Your task to perform on an android device: toggle data saver in the chrome app Image 0: 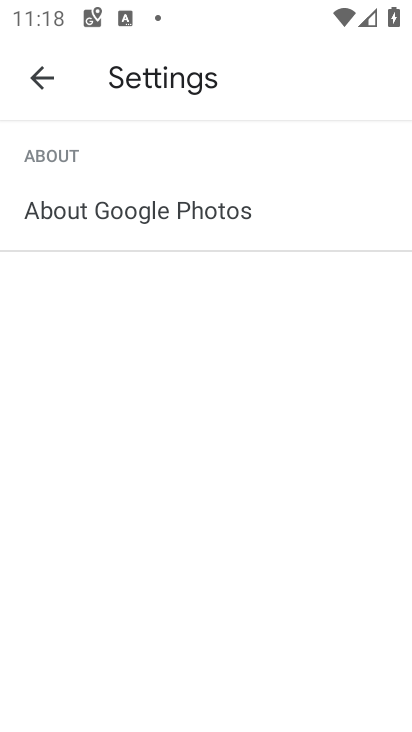
Step 0: press home button
Your task to perform on an android device: toggle data saver in the chrome app Image 1: 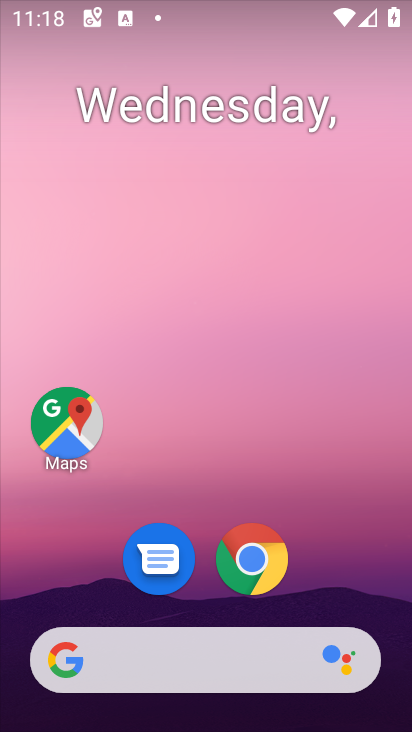
Step 1: drag from (225, 617) to (241, 234)
Your task to perform on an android device: toggle data saver in the chrome app Image 2: 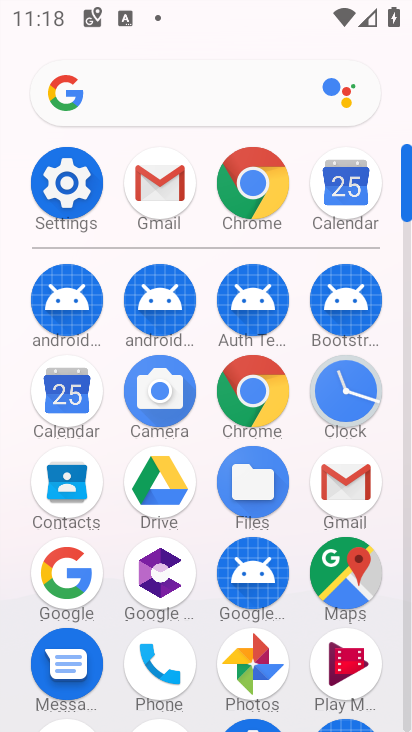
Step 2: click (262, 406)
Your task to perform on an android device: toggle data saver in the chrome app Image 3: 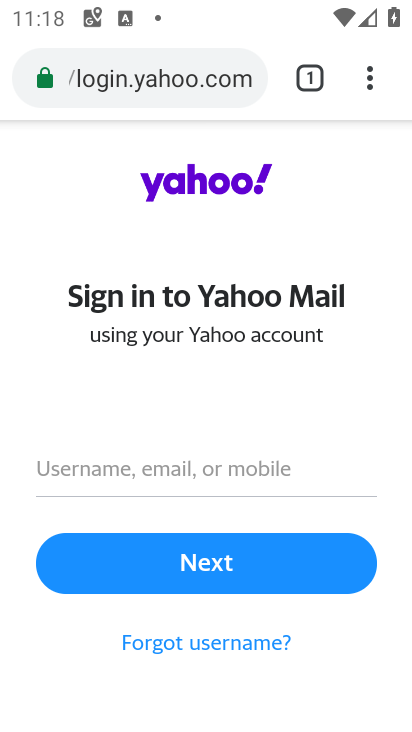
Step 3: click (374, 83)
Your task to perform on an android device: toggle data saver in the chrome app Image 4: 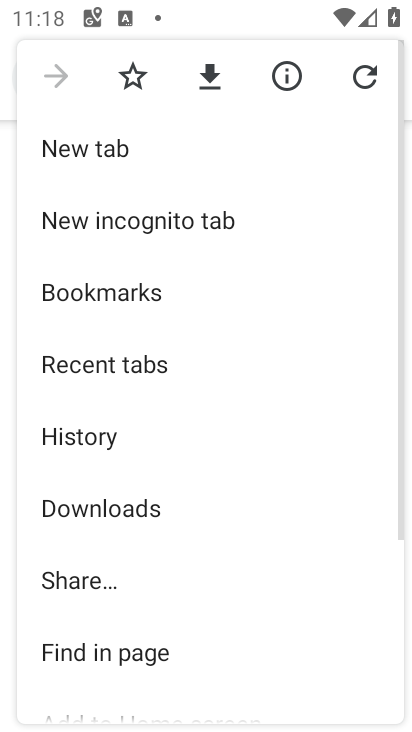
Step 4: drag from (188, 453) to (222, 137)
Your task to perform on an android device: toggle data saver in the chrome app Image 5: 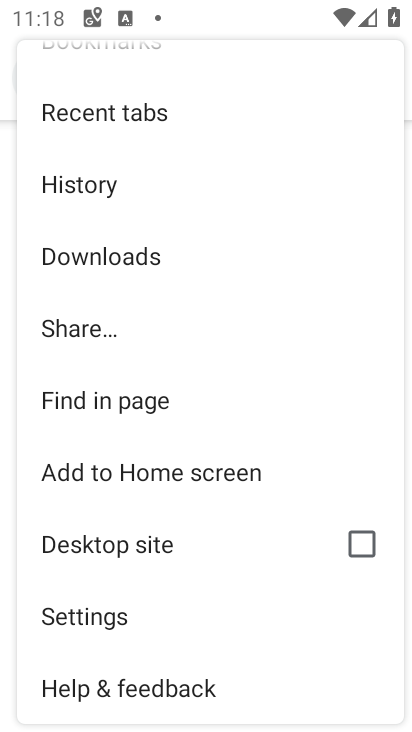
Step 5: click (113, 624)
Your task to perform on an android device: toggle data saver in the chrome app Image 6: 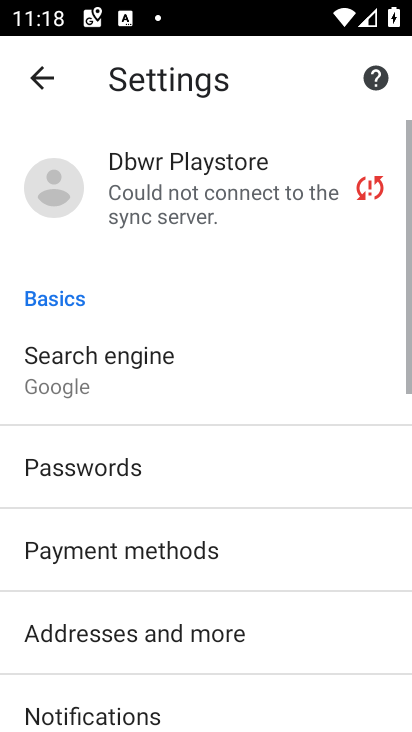
Step 6: drag from (148, 624) to (222, 329)
Your task to perform on an android device: toggle data saver in the chrome app Image 7: 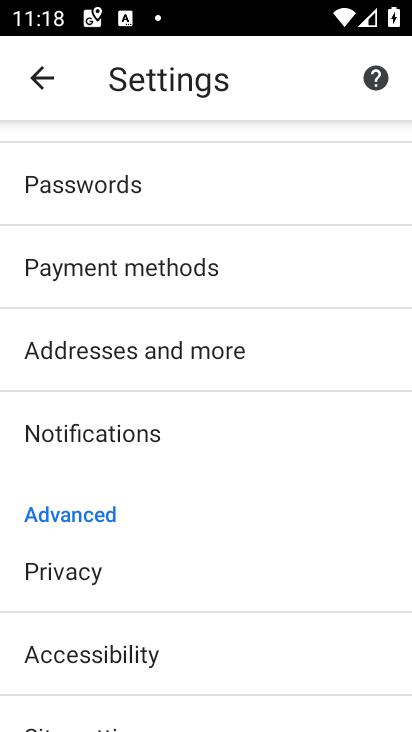
Step 7: drag from (180, 619) to (247, 303)
Your task to perform on an android device: toggle data saver in the chrome app Image 8: 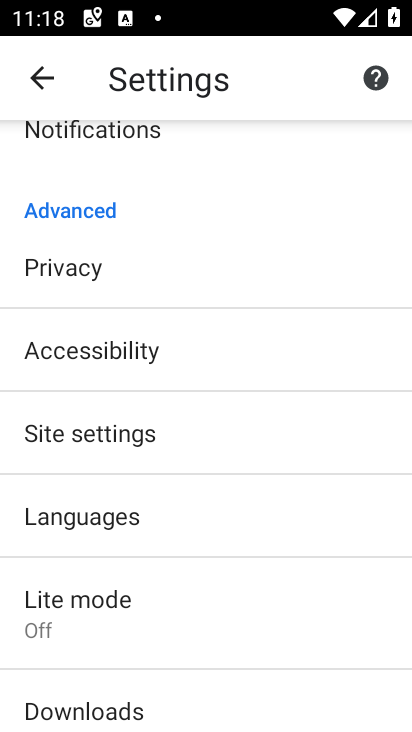
Step 8: drag from (169, 614) to (178, 499)
Your task to perform on an android device: toggle data saver in the chrome app Image 9: 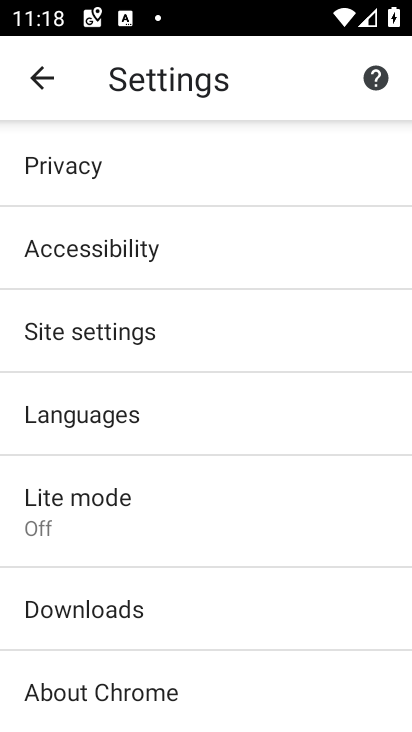
Step 9: click (148, 520)
Your task to perform on an android device: toggle data saver in the chrome app Image 10: 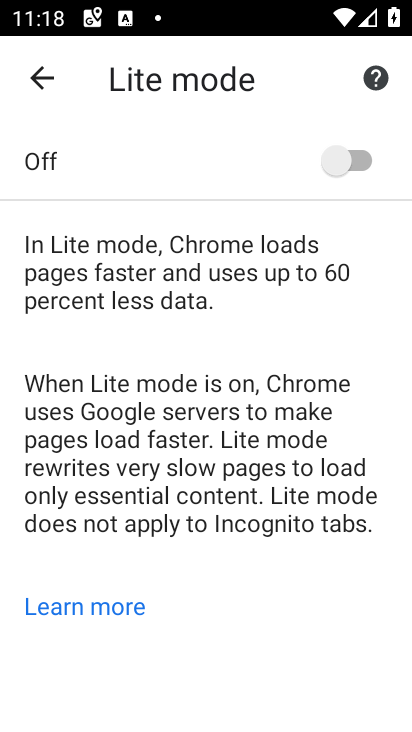
Step 10: click (355, 161)
Your task to perform on an android device: toggle data saver in the chrome app Image 11: 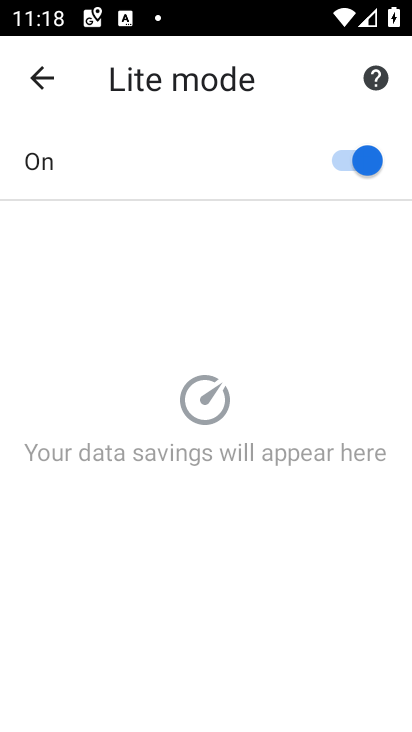
Step 11: task complete